Your task to perform on an android device: change the clock style Image 0: 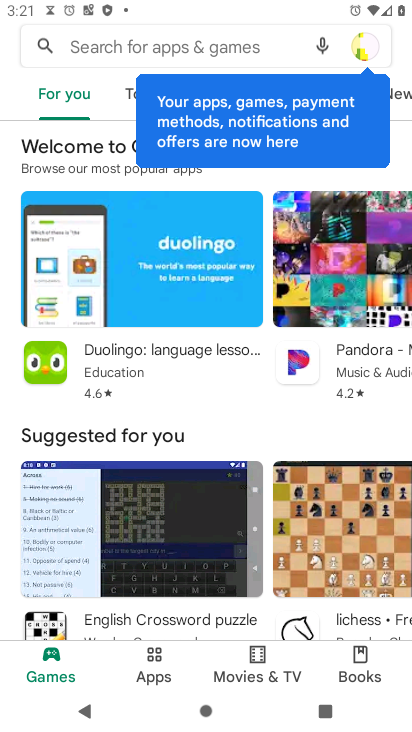
Step 0: press back button
Your task to perform on an android device: change the clock style Image 1: 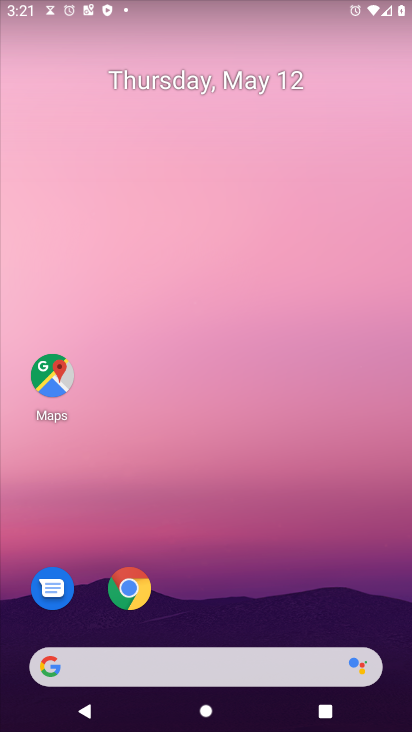
Step 1: drag from (258, 530) to (189, 24)
Your task to perform on an android device: change the clock style Image 2: 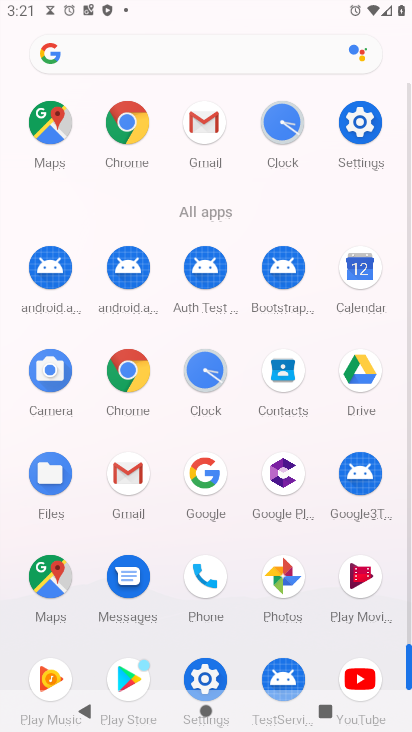
Step 2: drag from (4, 524) to (5, 220)
Your task to perform on an android device: change the clock style Image 3: 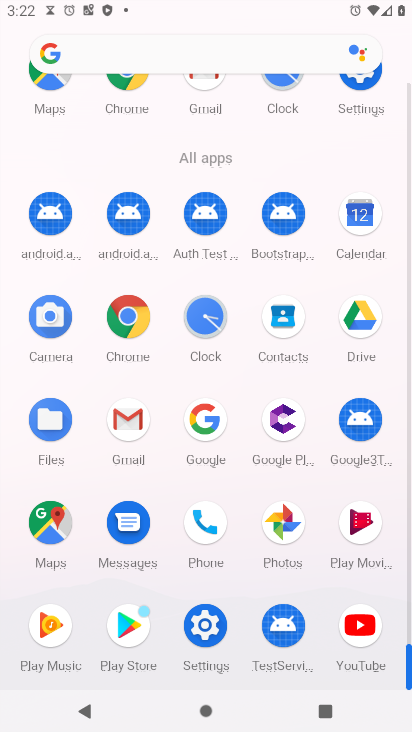
Step 3: drag from (18, 525) to (18, 195)
Your task to perform on an android device: change the clock style Image 4: 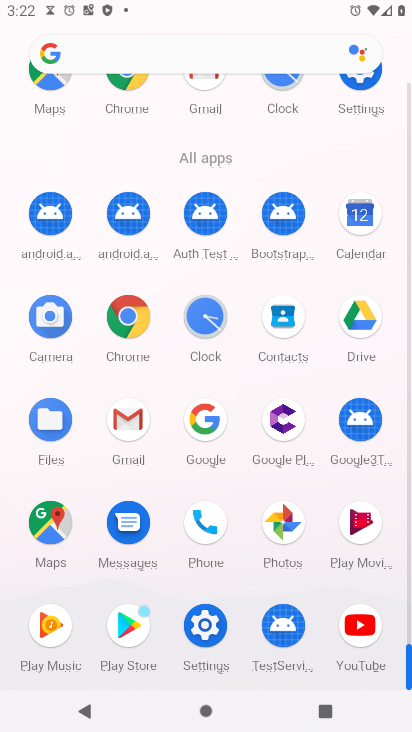
Step 4: click (207, 311)
Your task to perform on an android device: change the clock style Image 5: 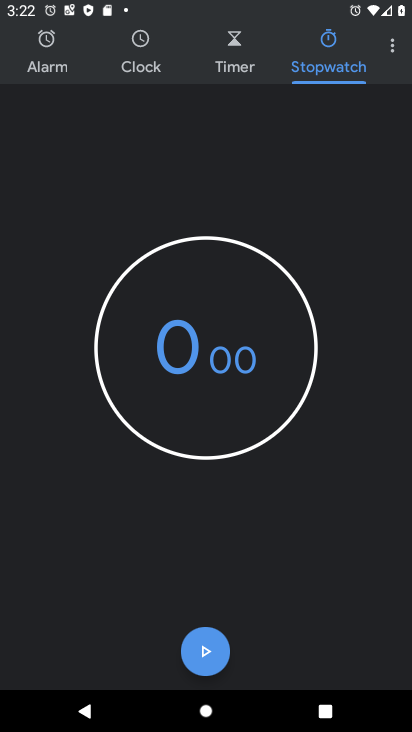
Step 5: drag from (388, 48) to (338, 89)
Your task to perform on an android device: change the clock style Image 6: 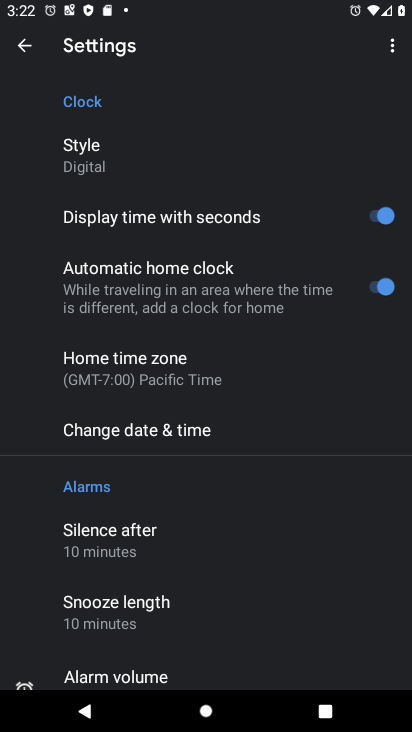
Step 6: click (117, 156)
Your task to perform on an android device: change the clock style Image 7: 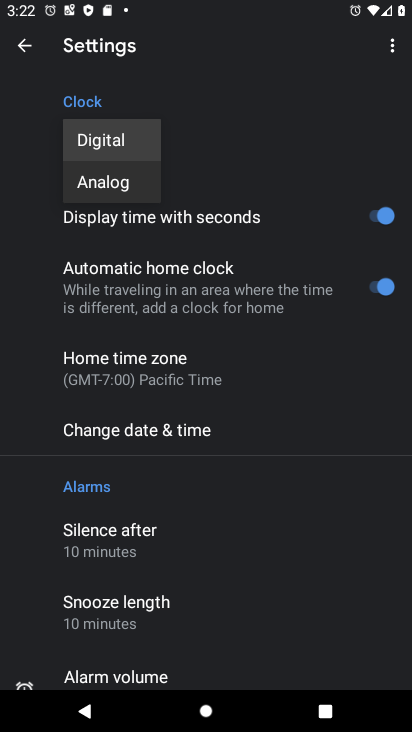
Step 7: click (114, 178)
Your task to perform on an android device: change the clock style Image 8: 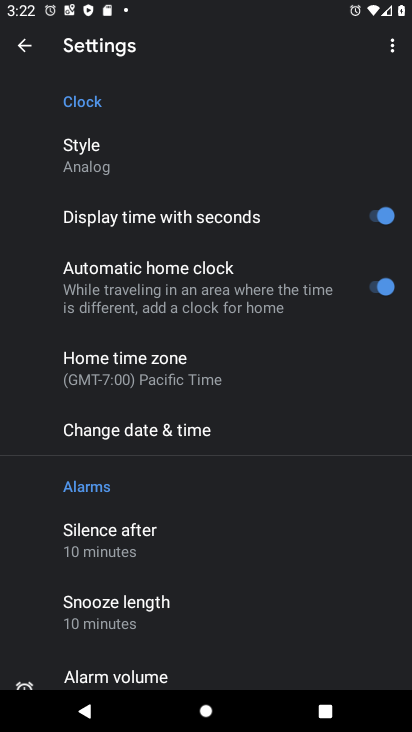
Step 8: task complete